Your task to perform on an android device: delete a single message in the gmail app Image 0: 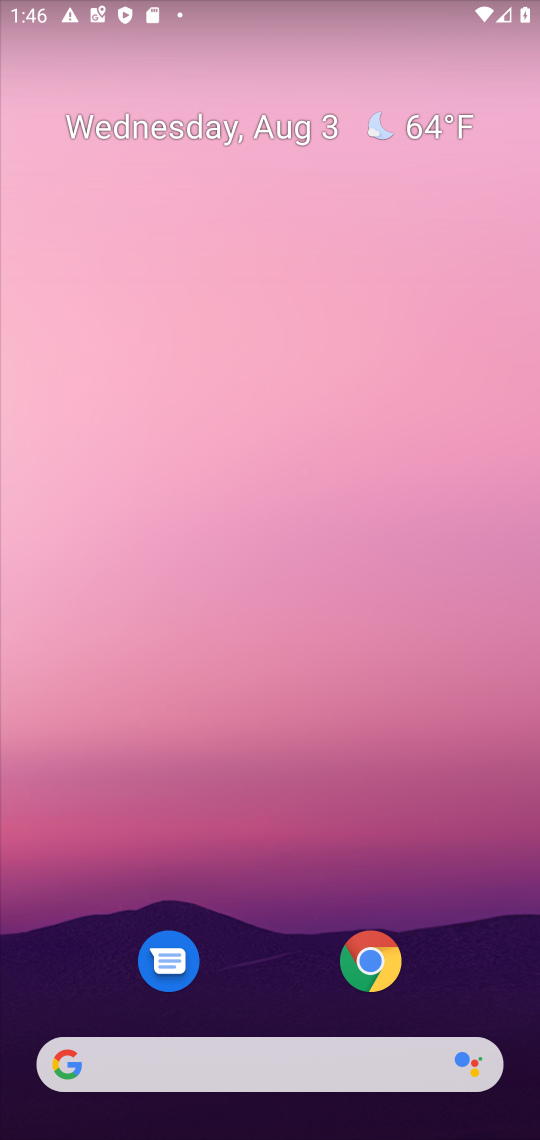
Step 0: drag from (284, 858) to (325, 60)
Your task to perform on an android device: delete a single message in the gmail app Image 1: 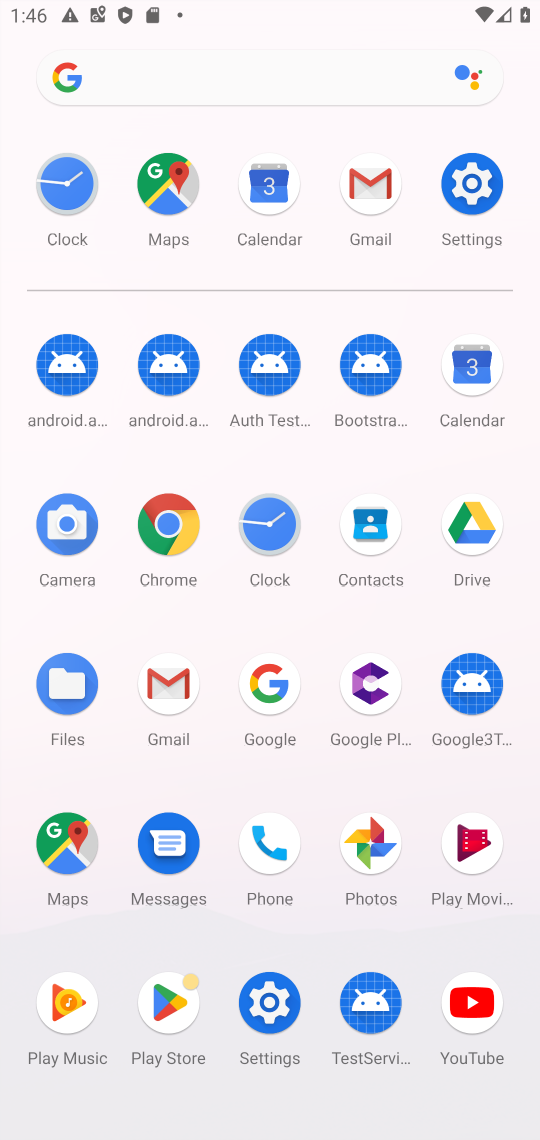
Step 1: click (366, 190)
Your task to perform on an android device: delete a single message in the gmail app Image 2: 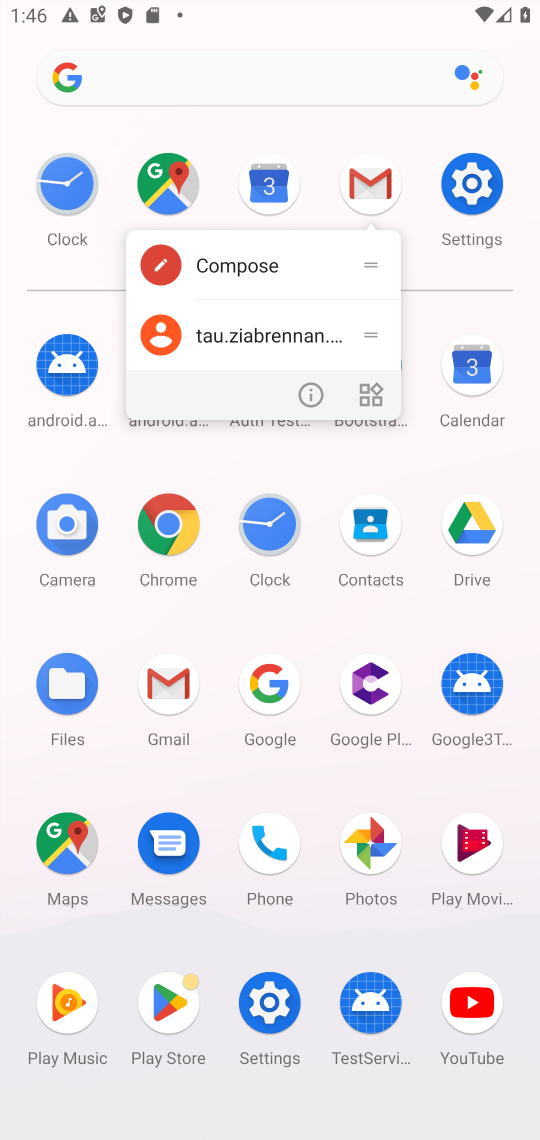
Step 2: click (366, 190)
Your task to perform on an android device: delete a single message in the gmail app Image 3: 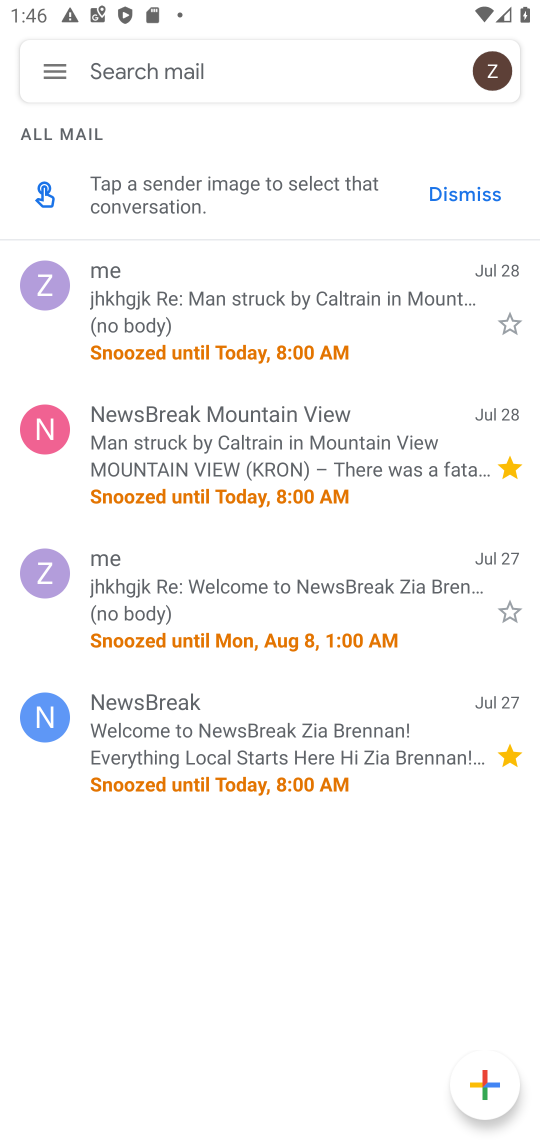
Step 3: click (191, 313)
Your task to perform on an android device: delete a single message in the gmail app Image 4: 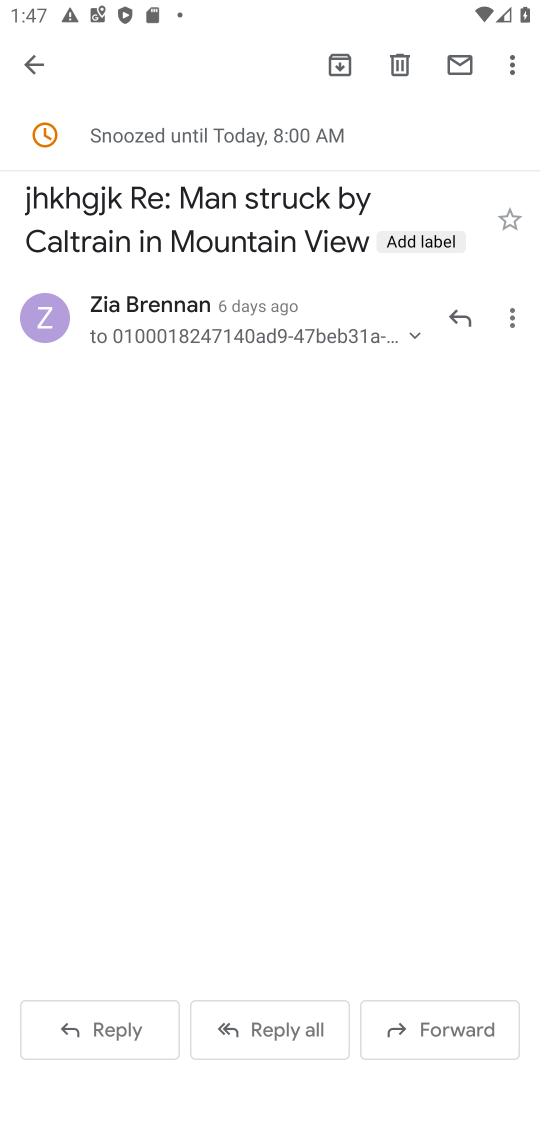
Step 4: click (402, 73)
Your task to perform on an android device: delete a single message in the gmail app Image 5: 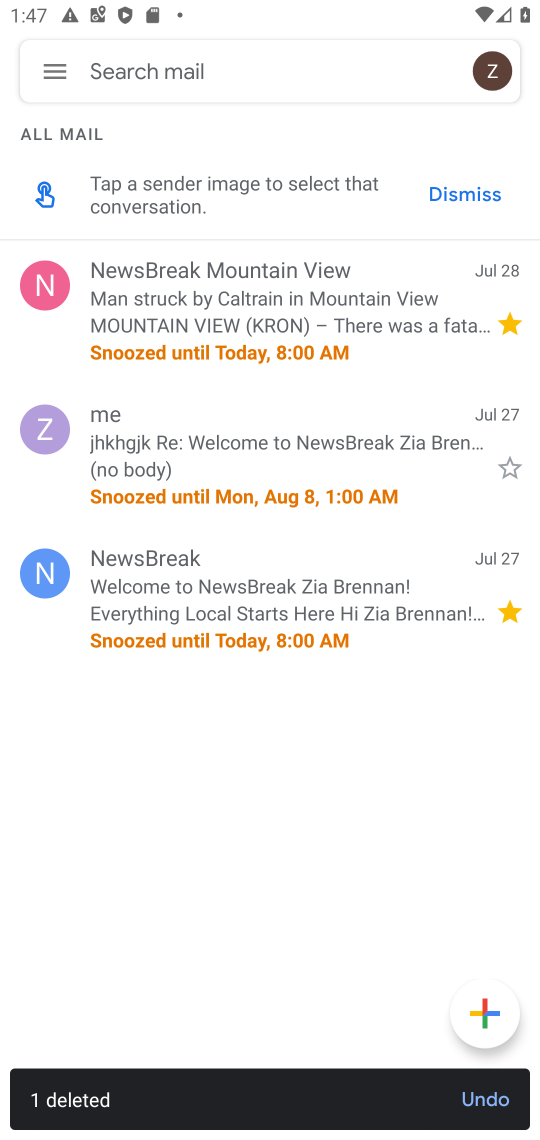
Step 5: task complete